Your task to perform on an android device: turn on sleep mode Image 0: 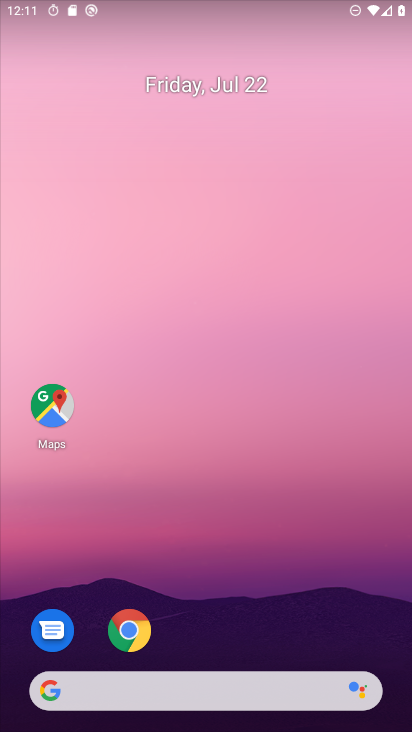
Step 0: press home button
Your task to perform on an android device: turn on sleep mode Image 1: 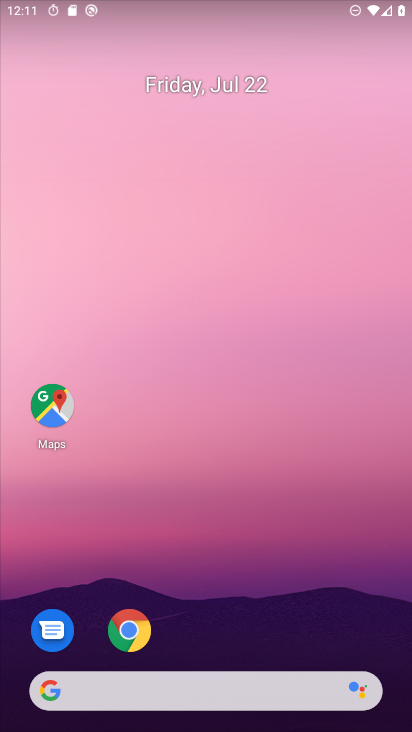
Step 1: drag from (302, 659) to (264, 204)
Your task to perform on an android device: turn on sleep mode Image 2: 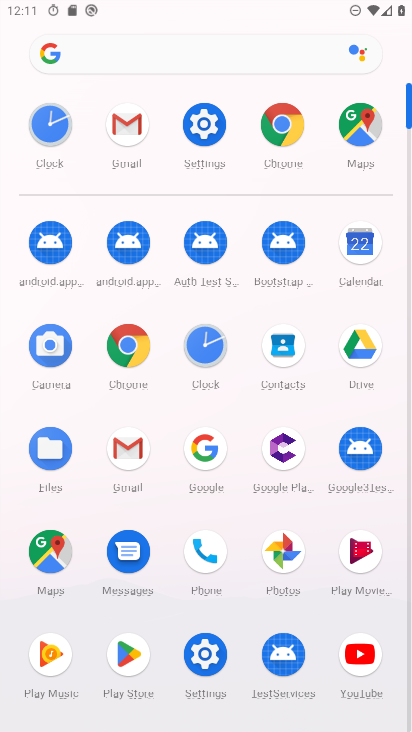
Step 2: click (201, 126)
Your task to perform on an android device: turn on sleep mode Image 3: 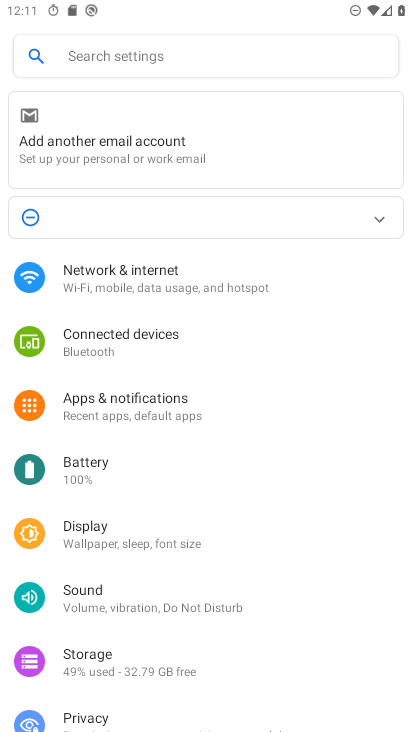
Step 3: click (128, 532)
Your task to perform on an android device: turn on sleep mode Image 4: 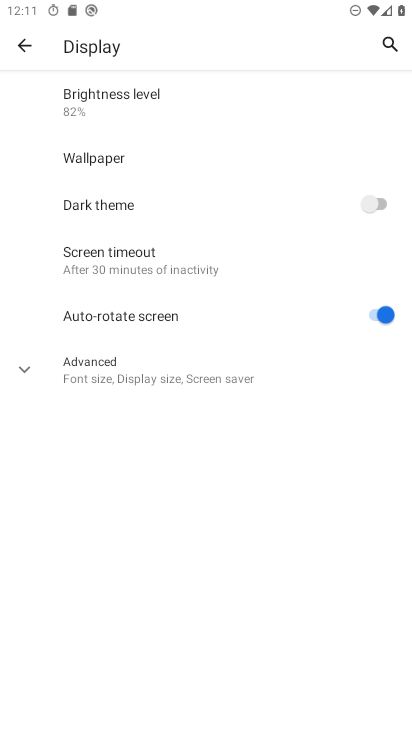
Step 4: click (26, 369)
Your task to perform on an android device: turn on sleep mode Image 5: 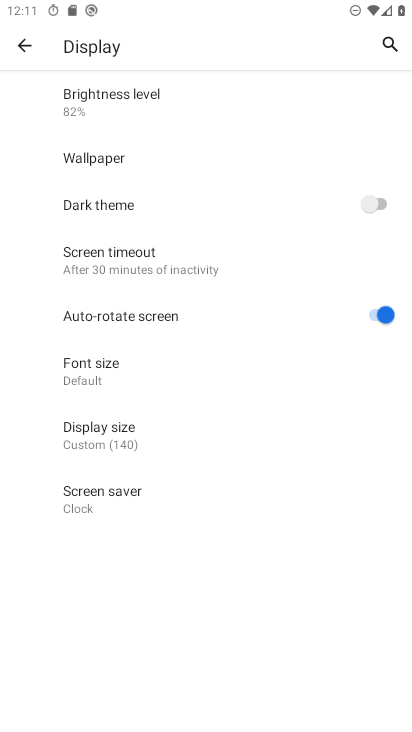
Step 5: task complete